Your task to perform on an android device: Set the phone to "Do not disturb". Image 0: 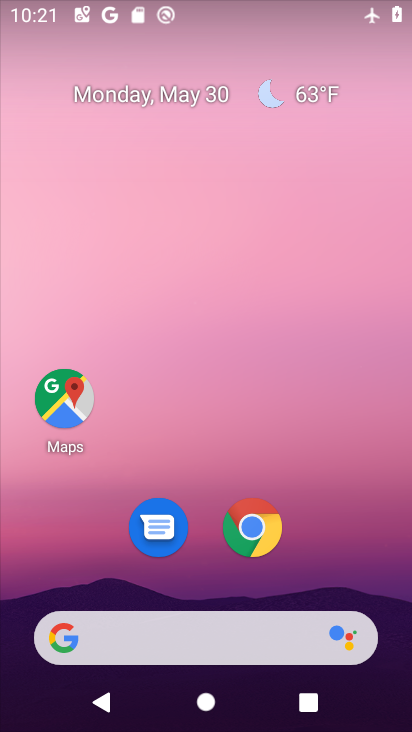
Step 0: drag from (305, 550) to (246, 249)
Your task to perform on an android device: Set the phone to "Do not disturb". Image 1: 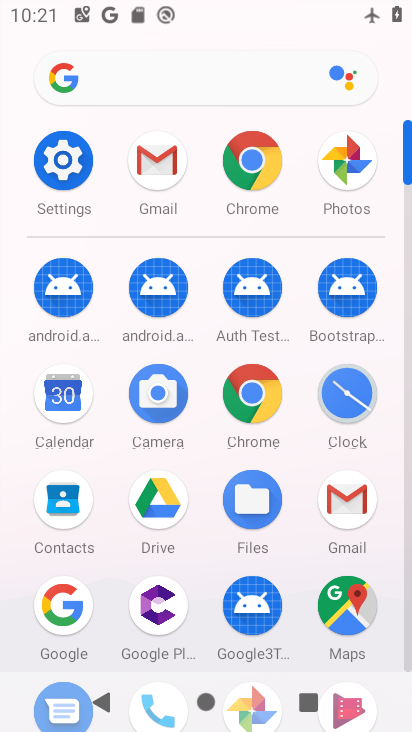
Step 1: drag from (152, 6) to (165, 450)
Your task to perform on an android device: Set the phone to "Do not disturb". Image 2: 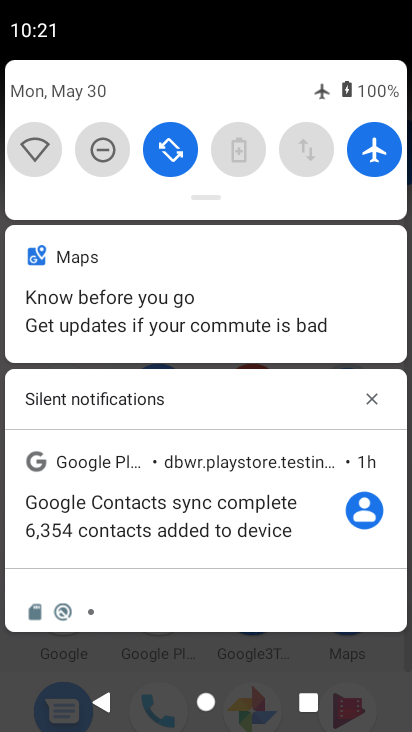
Step 2: click (107, 140)
Your task to perform on an android device: Set the phone to "Do not disturb". Image 3: 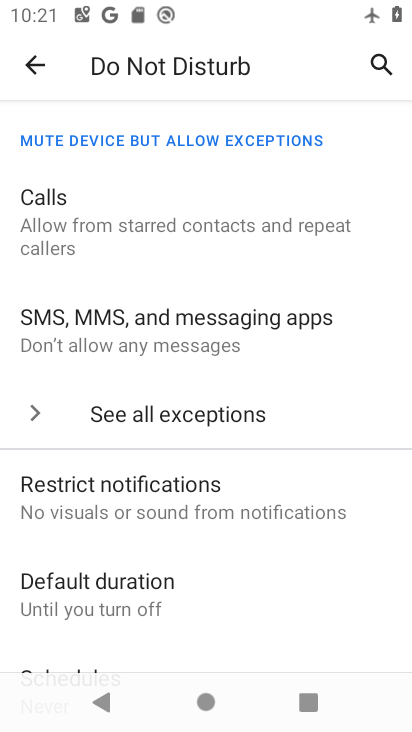
Step 3: drag from (236, 621) to (272, 128)
Your task to perform on an android device: Set the phone to "Do not disturb". Image 4: 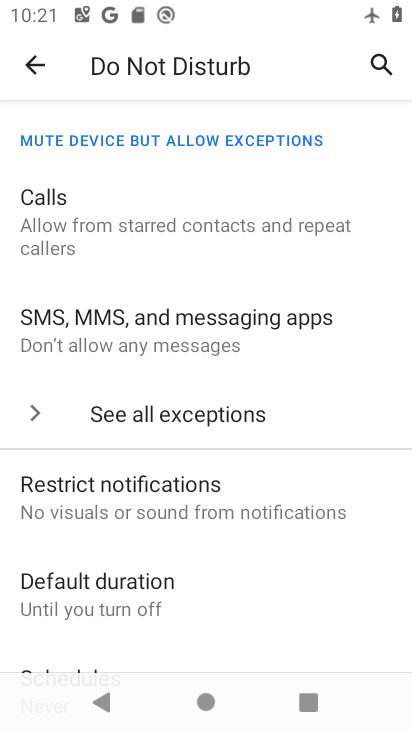
Step 4: drag from (154, 633) to (259, 152)
Your task to perform on an android device: Set the phone to "Do not disturb". Image 5: 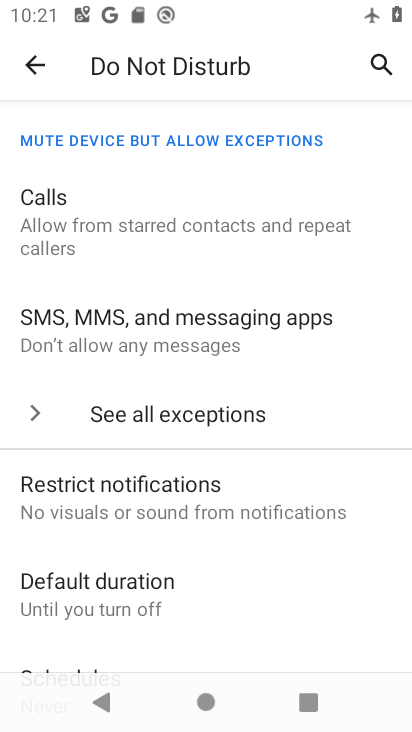
Step 5: drag from (179, 607) to (255, 167)
Your task to perform on an android device: Set the phone to "Do not disturb". Image 6: 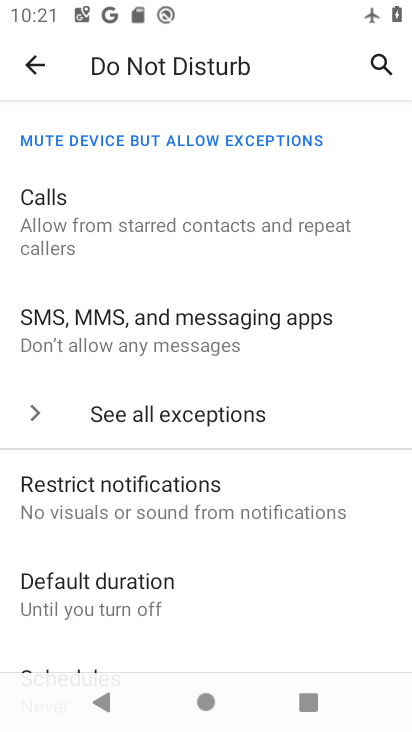
Step 6: drag from (147, 618) to (204, 189)
Your task to perform on an android device: Set the phone to "Do not disturb". Image 7: 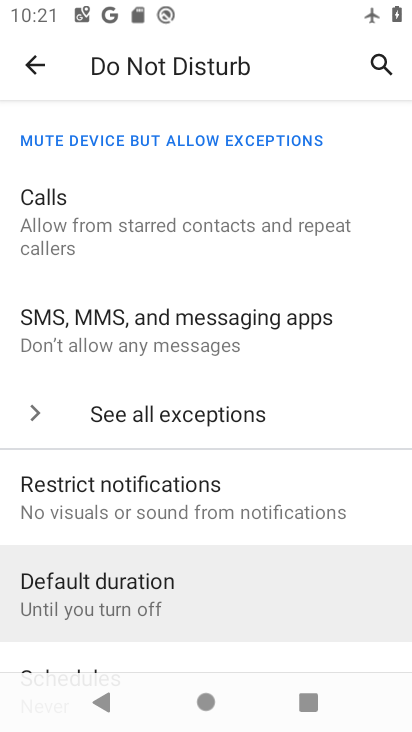
Step 7: drag from (216, 571) to (211, 262)
Your task to perform on an android device: Set the phone to "Do not disturb". Image 8: 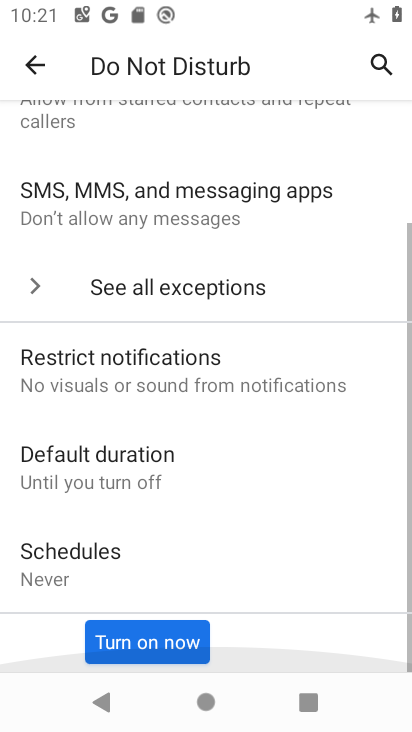
Step 8: drag from (229, 552) to (245, 221)
Your task to perform on an android device: Set the phone to "Do not disturb". Image 9: 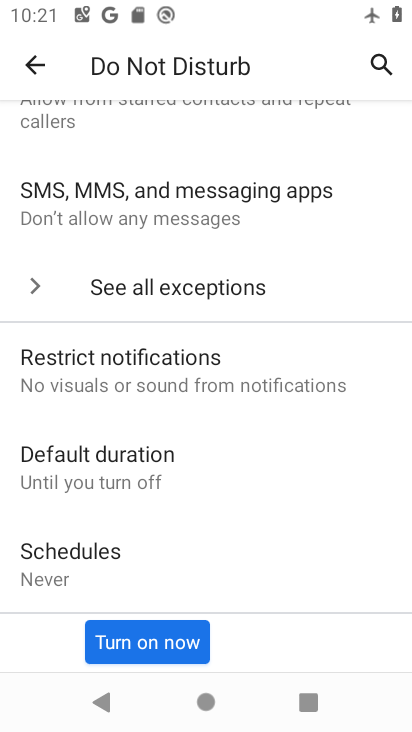
Step 9: click (152, 638)
Your task to perform on an android device: Set the phone to "Do not disturb". Image 10: 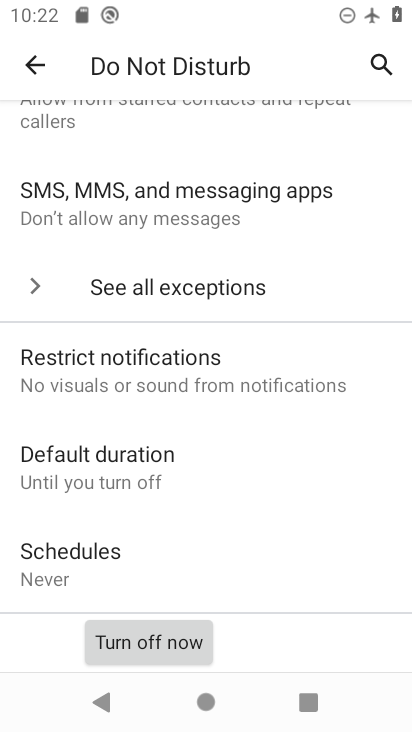
Step 10: task complete